Your task to perform on an android device: Open settings on Google Maps Image 0: 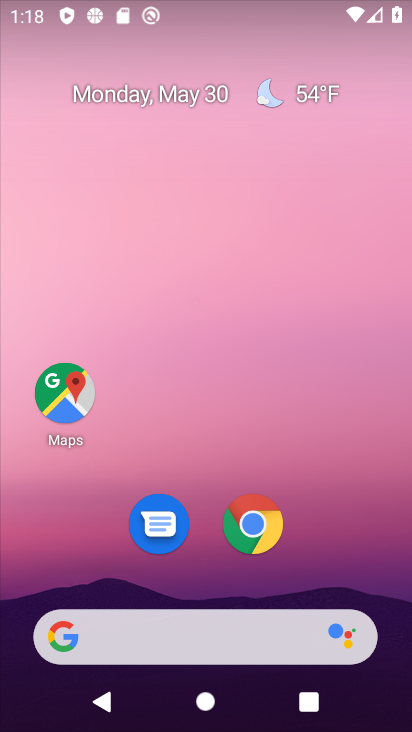
Step 0: click (50, 386)
Your task to perform on an android device: Open settings on Google Maps Image 1: 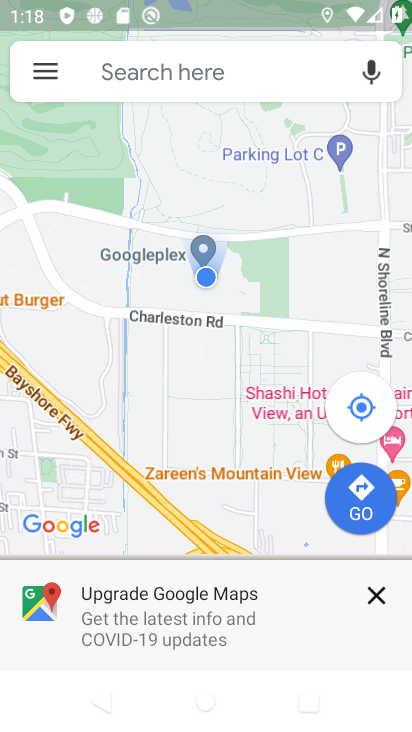
Step 1: click (44, 72)
Your task to perform on an android device: Open settings on Google Maps Image 2: 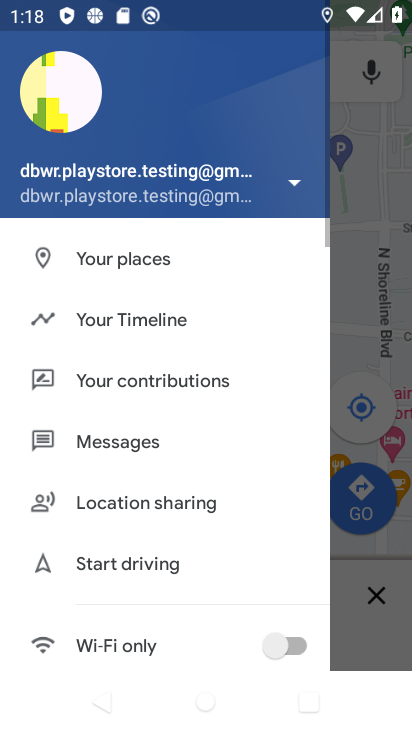
Step 2: drag from (195, 547) to (263, 0)
Your task to perform on an android device: Open settings on Google Maps Image 3: 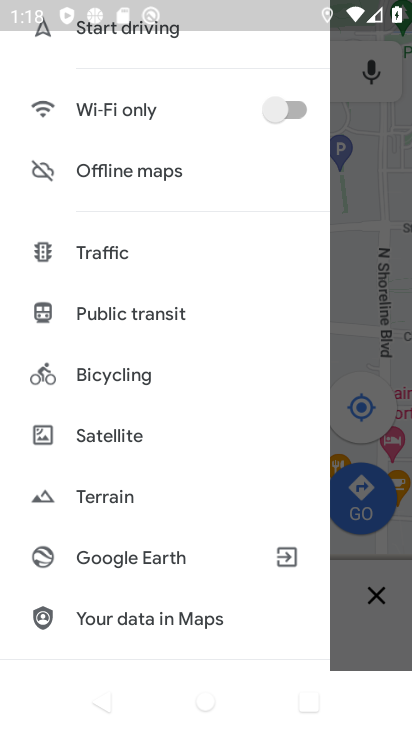
Step 3: drag from (170, 549) to (204, 161)
Your task to perform on an android device: Open settings on Google Maps Image 4: 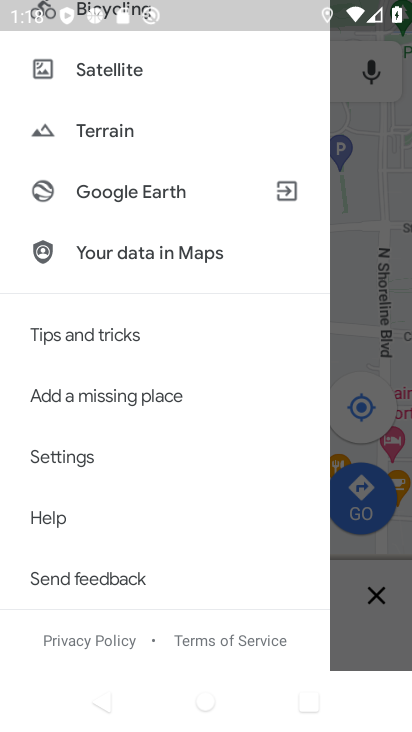
Step 4: click (112, 459)
Your task to perform on an android device: Open settings on Google Maps Image 5: 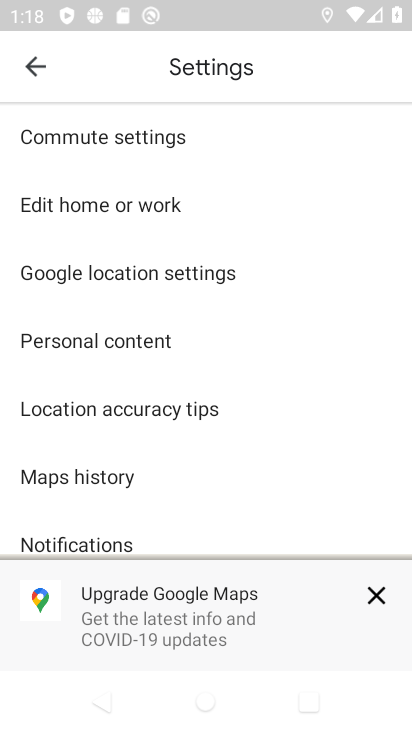
Step 5: task complete